Your task to perform on an android device: Is it going to rain today? Image 0: 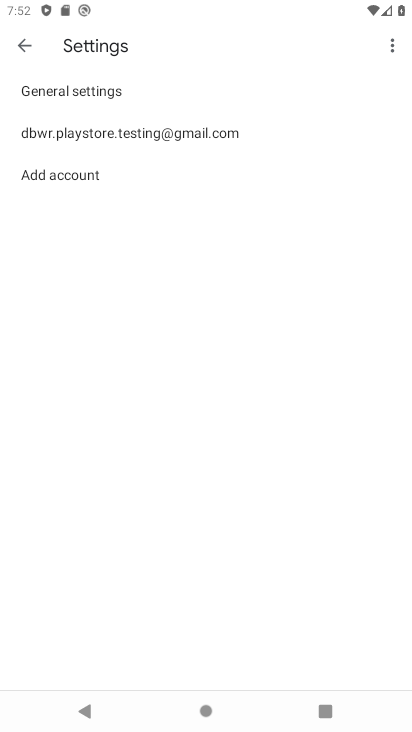
Step 0: press home button
Your task to perform on an android device: Is it going to rain today? Image 1: 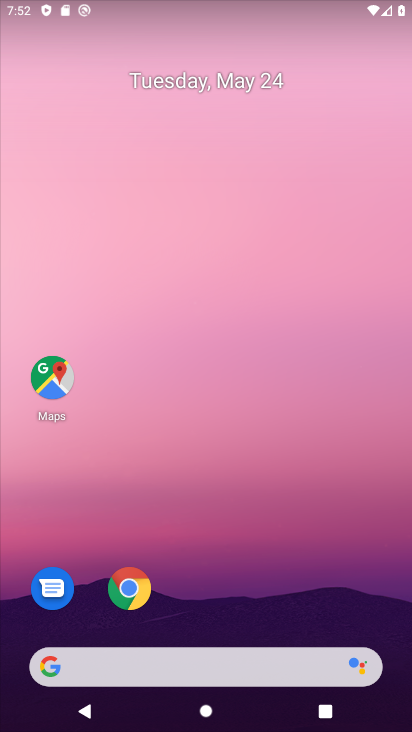
Step 1: drag from (243, 632) to (284, 0)
Your task to perform on an android device: Is it going to rain today? Image 2: 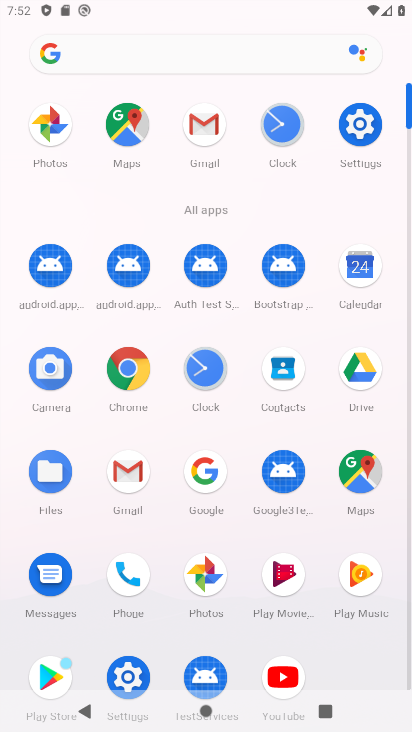
Step 2: click (137, 374)
Your task to perform on an android device: Is it going to rain today? Image 3: 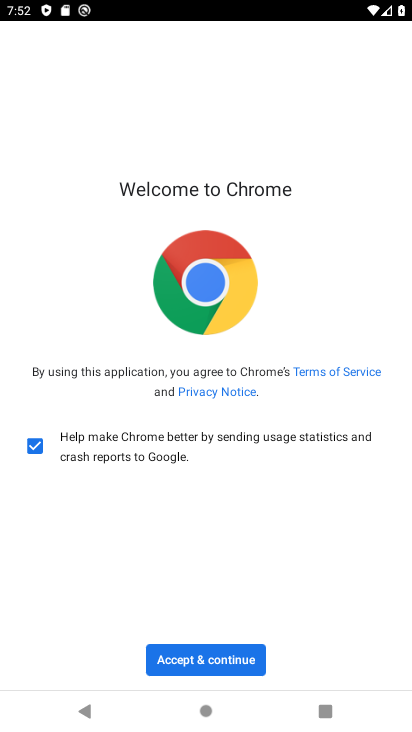
Step 3: click (175, 659)
Your task to perform on an android device: Is it going to rain today? Image 4: 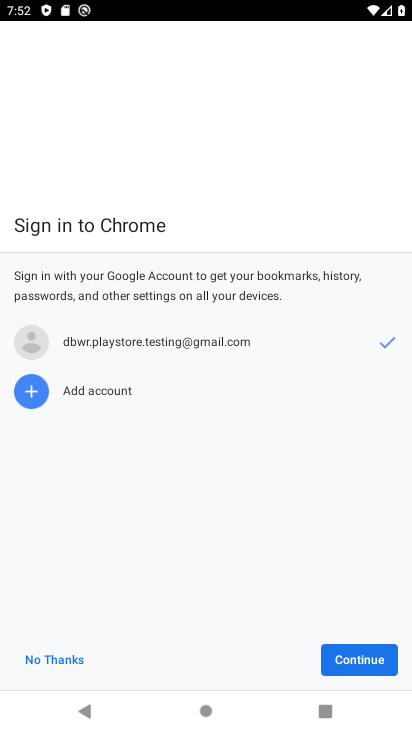
Step 4: click (322, 661)
Your task to perform on an android device: Is it going to rain today? Image 5: 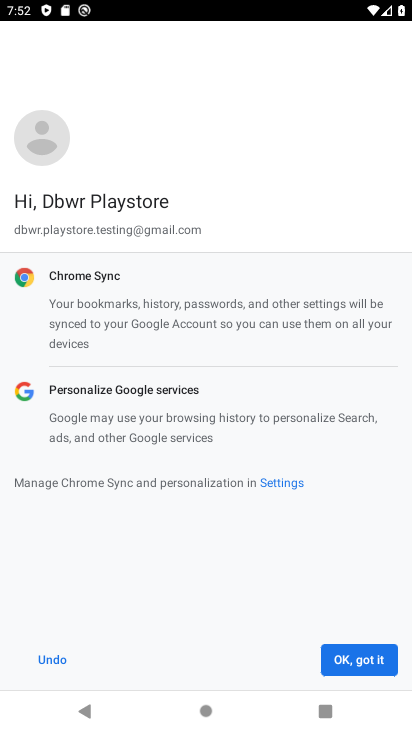
Step 5: click (356, 665)
Your task to perform on an android device: Is it going to rain today? Image 6: 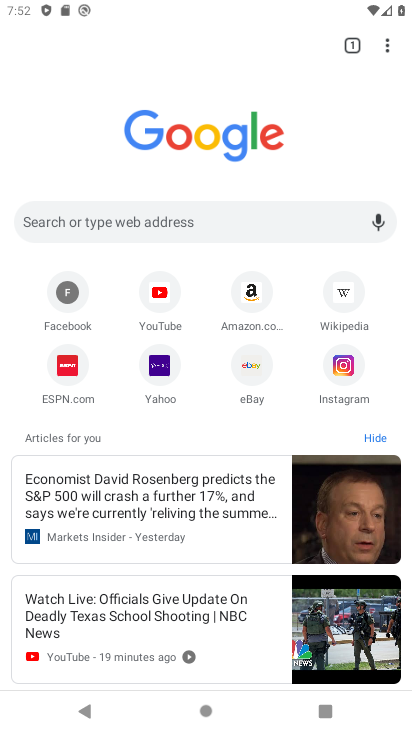
Step 6: click (226, 226)
Your task to perform on an android device: Is it going to rain today? Image 7: 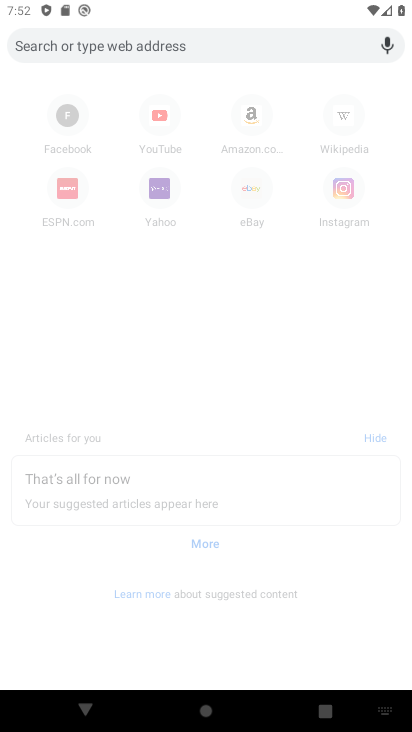
Step 7: type "whather today"
Your task to perform on an android device: Is it going to rain today? Image 8: 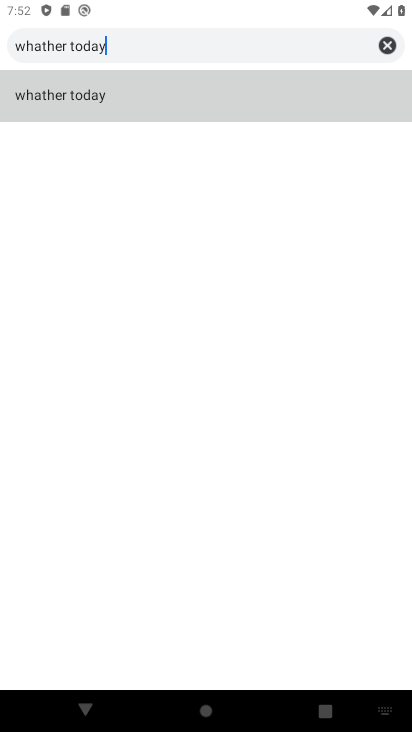
Step 8: type ""
Your task to perform on an android device: Is it going to rain today? Image 9: 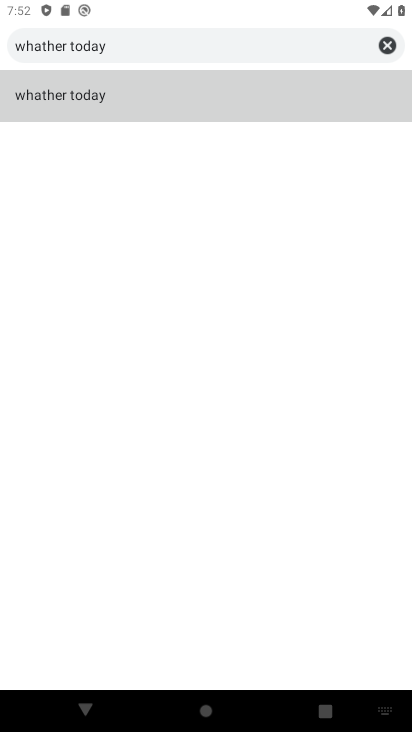
Step 9: click (235, 112)
Your task to perform on an android device: Is it going to rain today? Image 10: 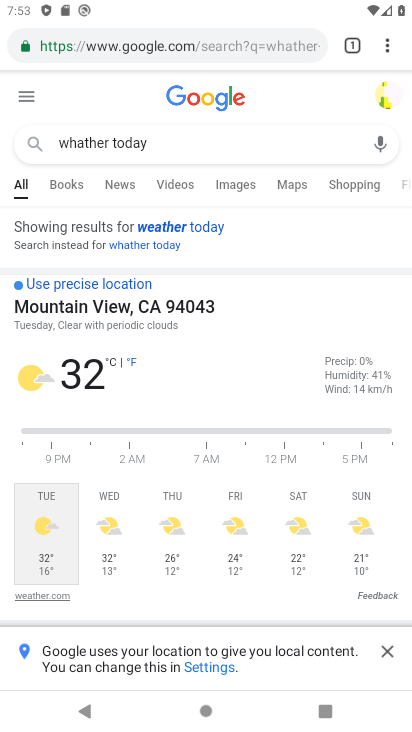
Step 10: task complete